Your task to perform on an android device: Clear the shopping cart on costco.com. Image 0: 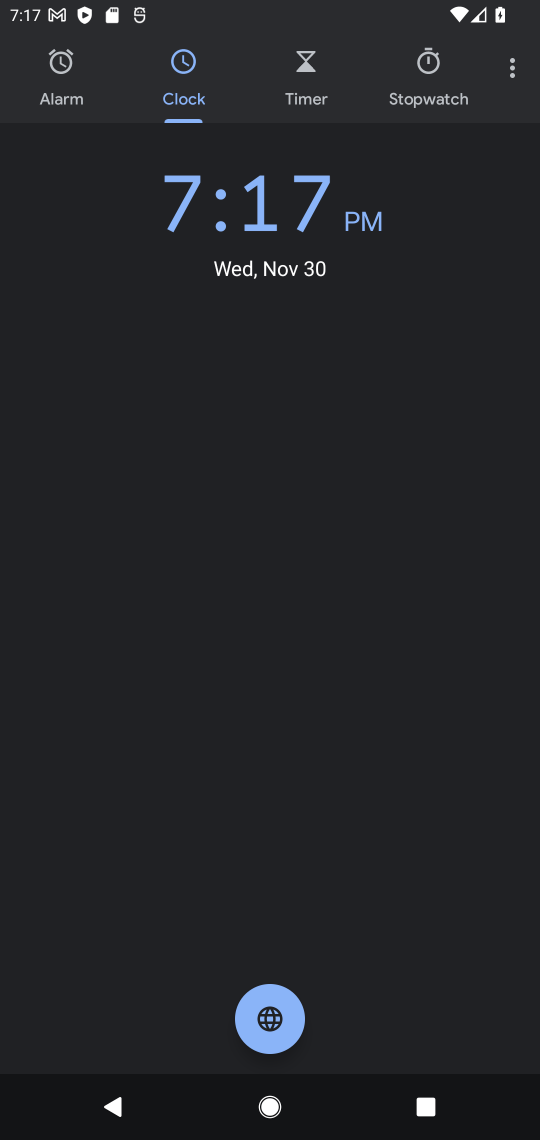
Step 0: press home button
Your task to perform on an android device: Clear the shopping cart on costco.com. Image 1: 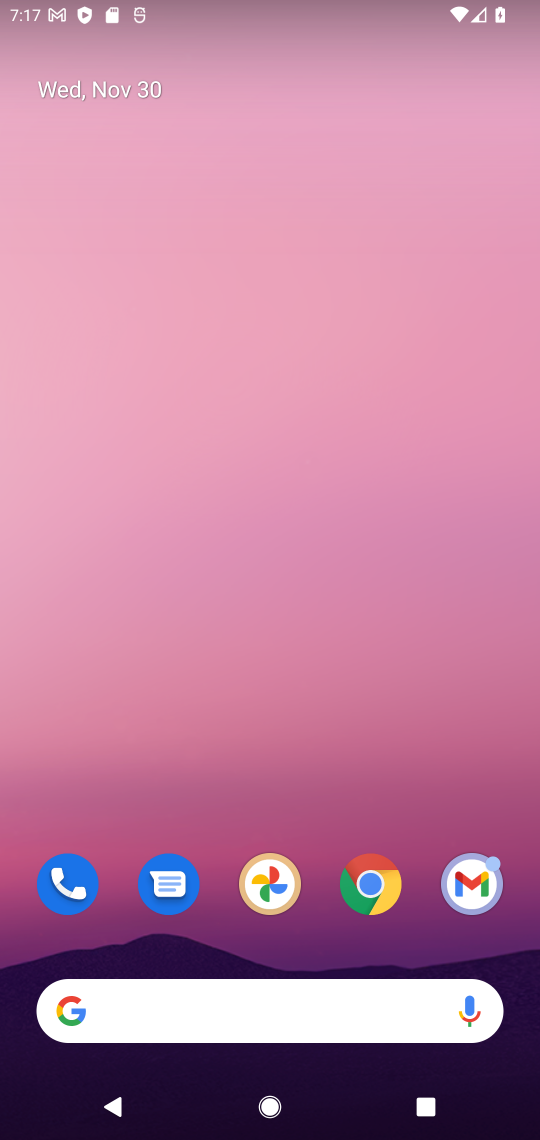
Step 1: click (366, 889)
Your task to perform on an android device: Clear the shopping cart on costco.com. Image 2: 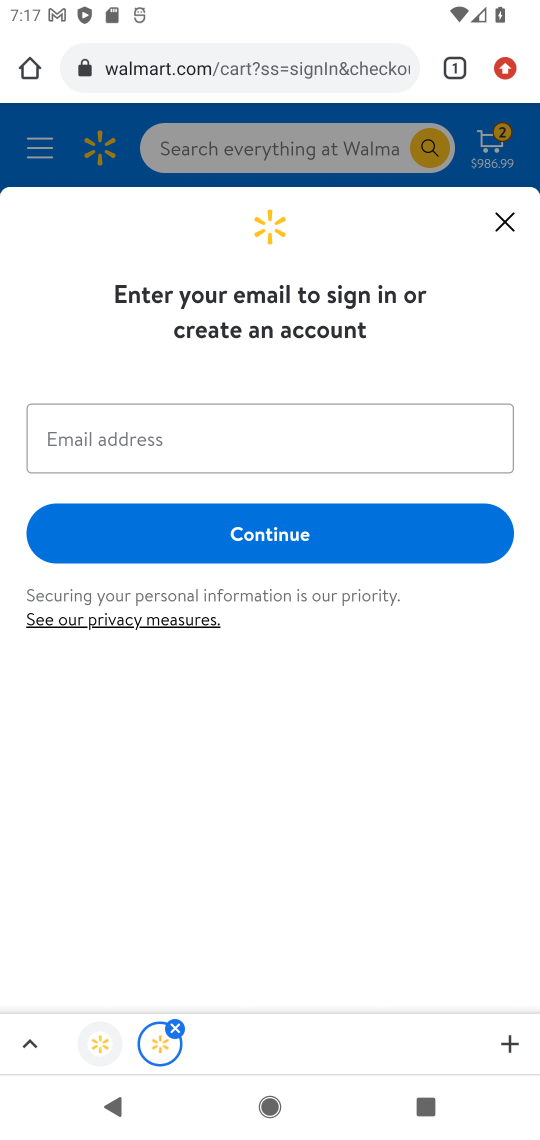
Step 2: click (229, 82)
Your task to perform on an android device: Clear the shopping cart on costco.com. Image 3: 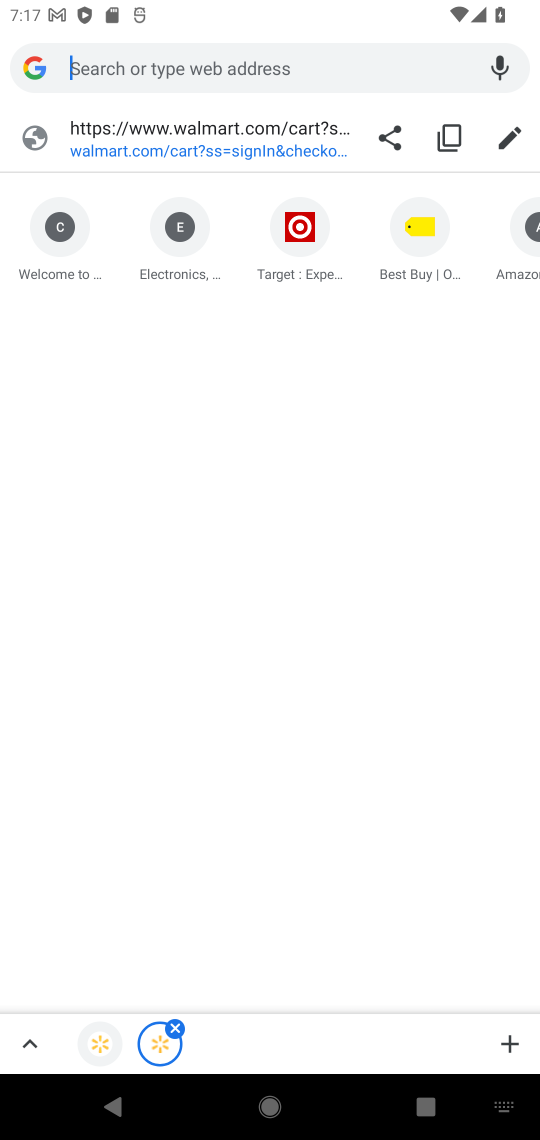
Step 3: type "costco.com"
Your task to perform on an android device: Clear the shopping cart on costco.com. Image 4: 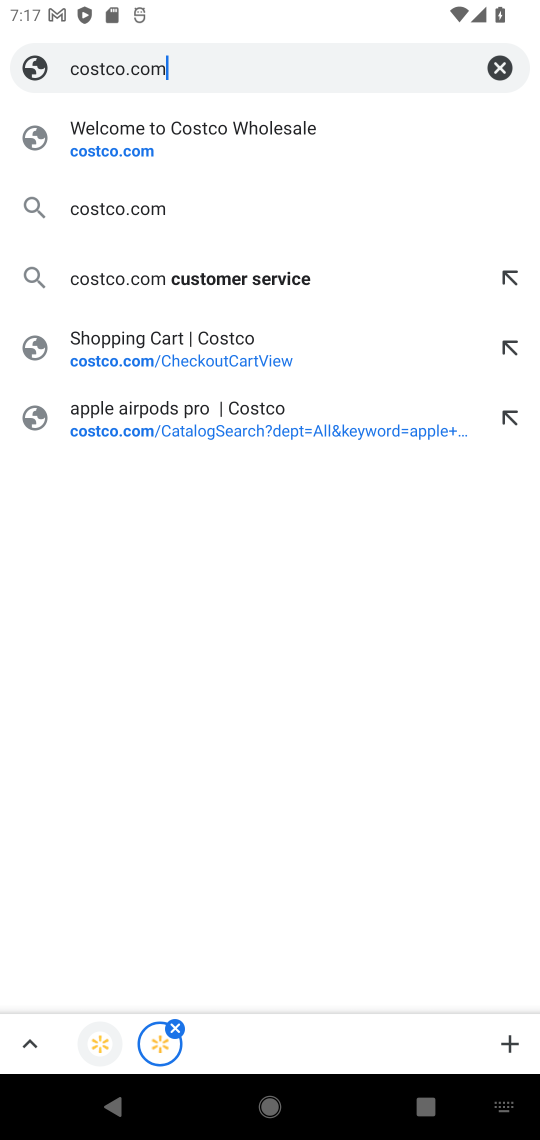
Step 4: click (87, 151)
Your task to perform on an android device: Clear the shopping cart on costco.com. Image 5: 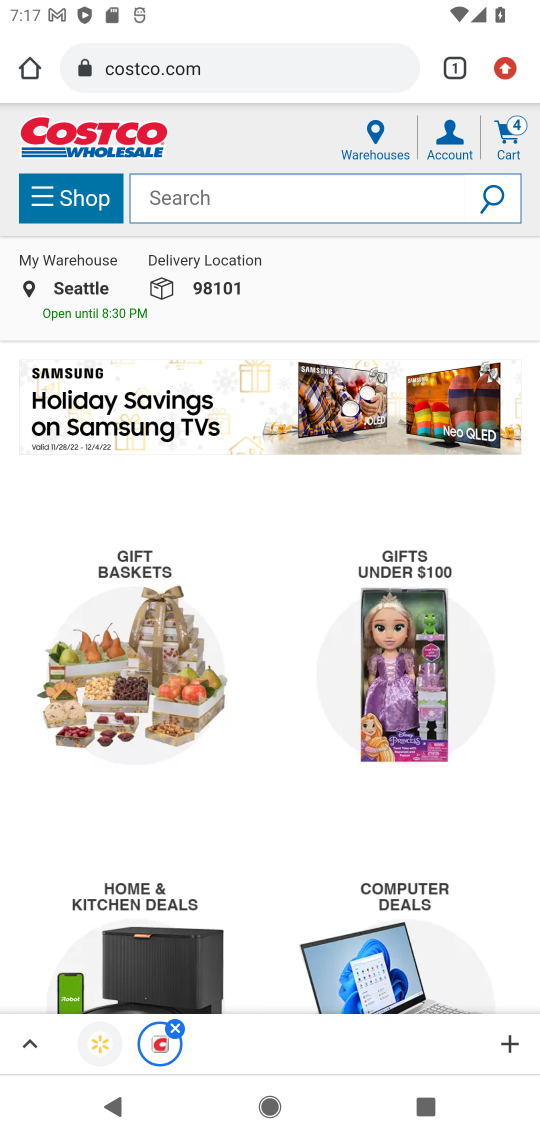
Step 5: click (509, 144)
Your task to perform on an android device: Clear the shopping cart on costco.com. Image 6: 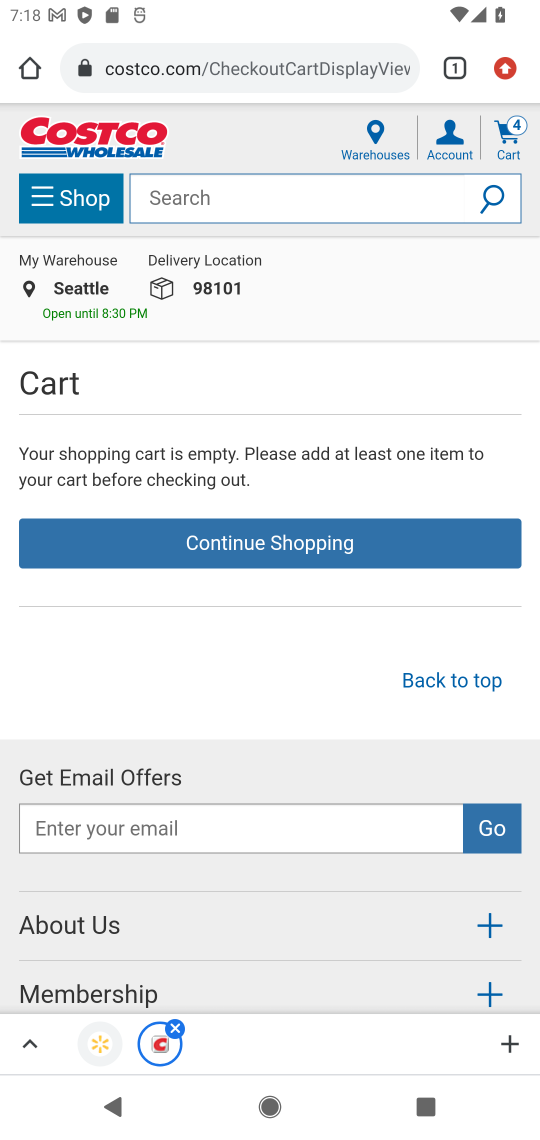
Step 6: drag from (316, 407) to (314, 522)
Your task to perform on an android device: Clear the shopping cart on costco.com. Image 7: 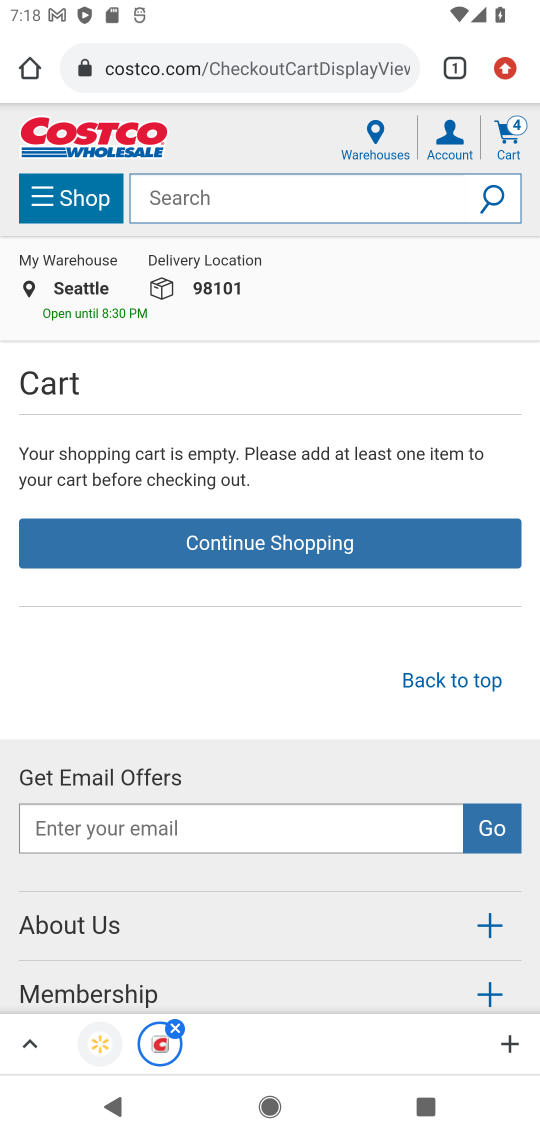
Step 7: drag from (235, 447) to (237, 628)
Your task to perform on an android device: Clear the shopping cart on costco.com. Image 8: 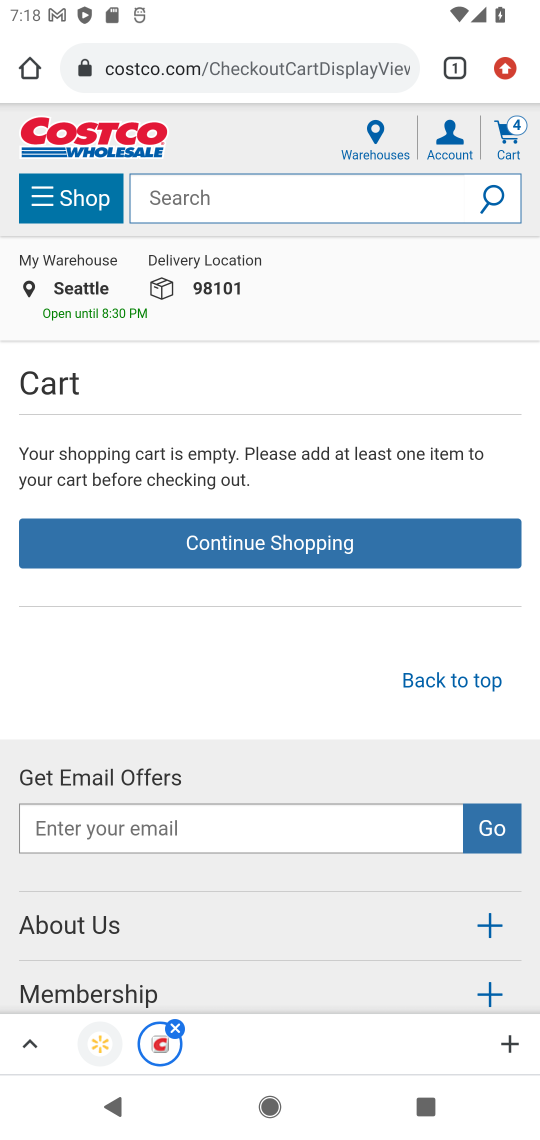
Step 8: click (505, 137)
Your task to perform on an android device: Clear the shopping cart on costco.com. Image 9: 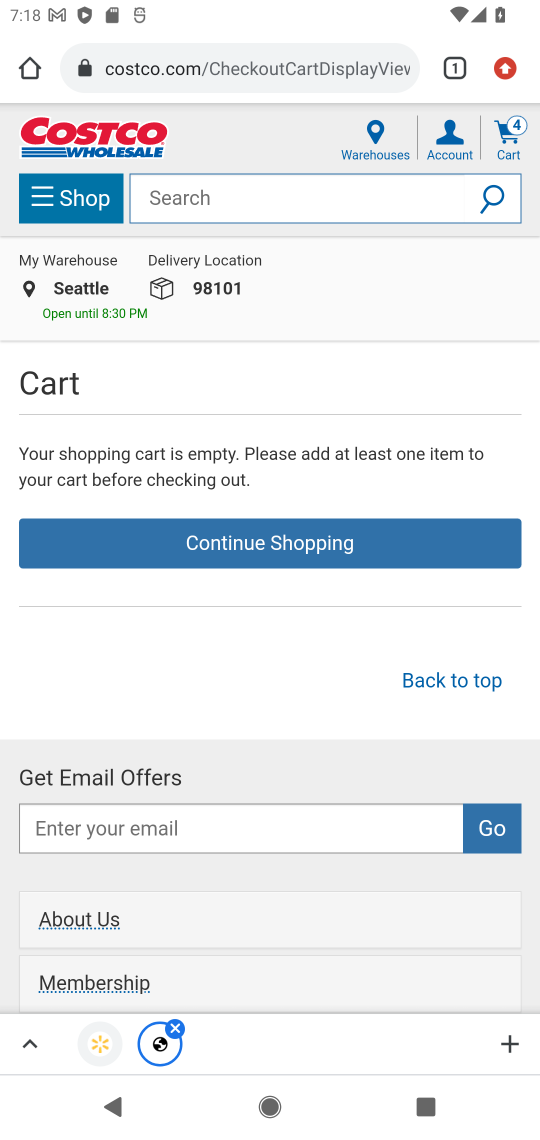
Step 9: click (505, 137)
Your task to perform on an android device: Clear the shopping cart on costco.com. Image 10: 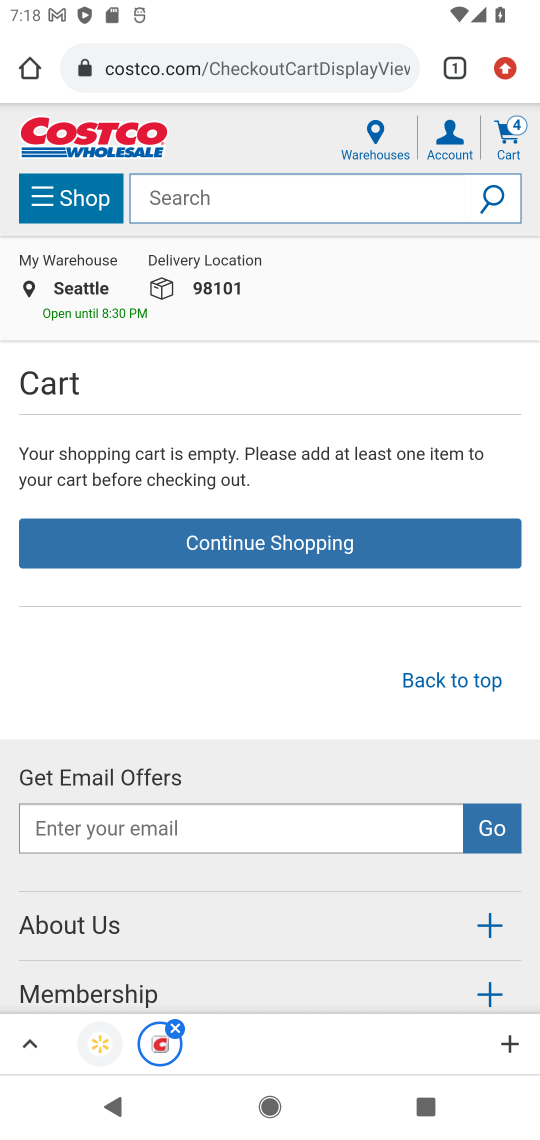
Step 10: task complete